Your task to perform on an android device: Clear the cart on ebay. Search for acer predator on ebay, select the first entry, and add it to the cart. Image 0: 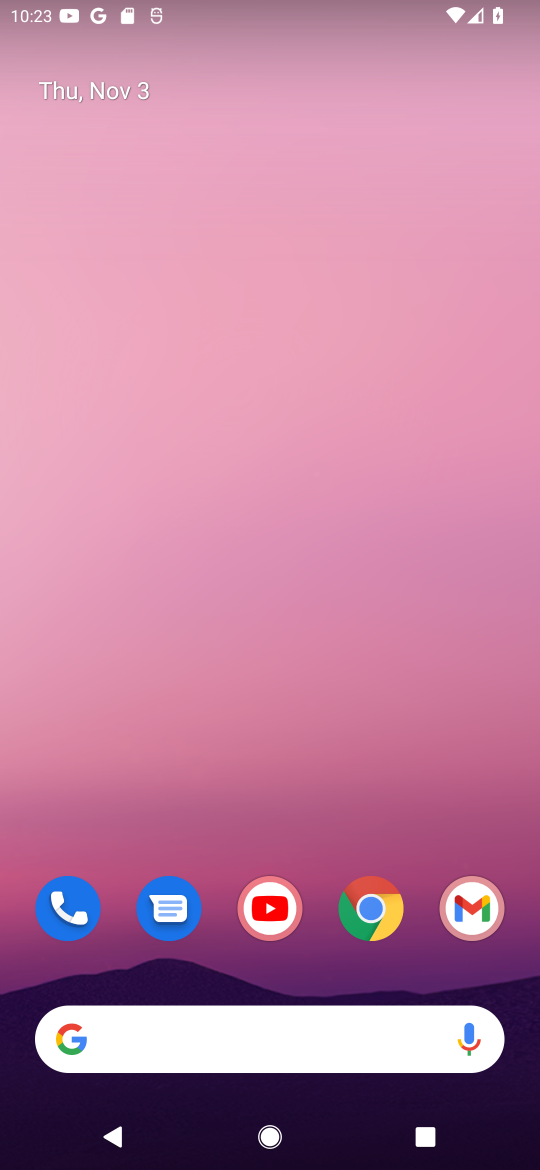
Step 0: click (366, 897)
Your task to perform on an android device: Clear the cart on ebay. Search for acer predator on ebay, select the first entry, and add it to the cart. Image 1: 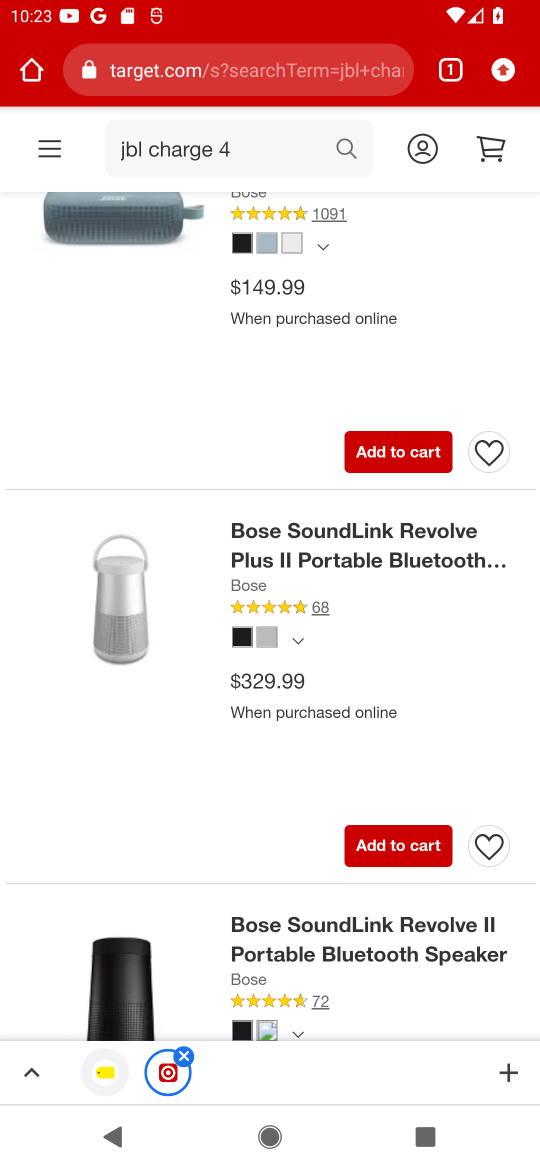
Step 1: click (29, 65)
Your task to perform on an android device: Clear the cart on ebay. Search for acer predator on ebay, select the first entry, and add it to the cart. Image 2: 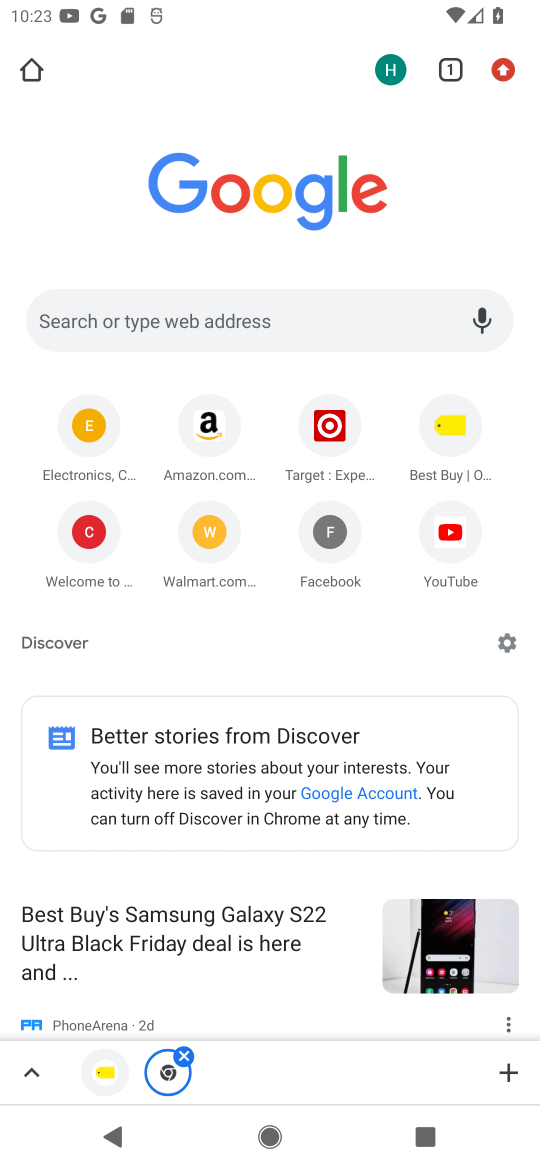
Step 2: click (274, 302)
Your task to perform on an android device: Clear the cart on ebay. Search for acer predator on ebay, select the first entry, and add it to the cart. Image 3: 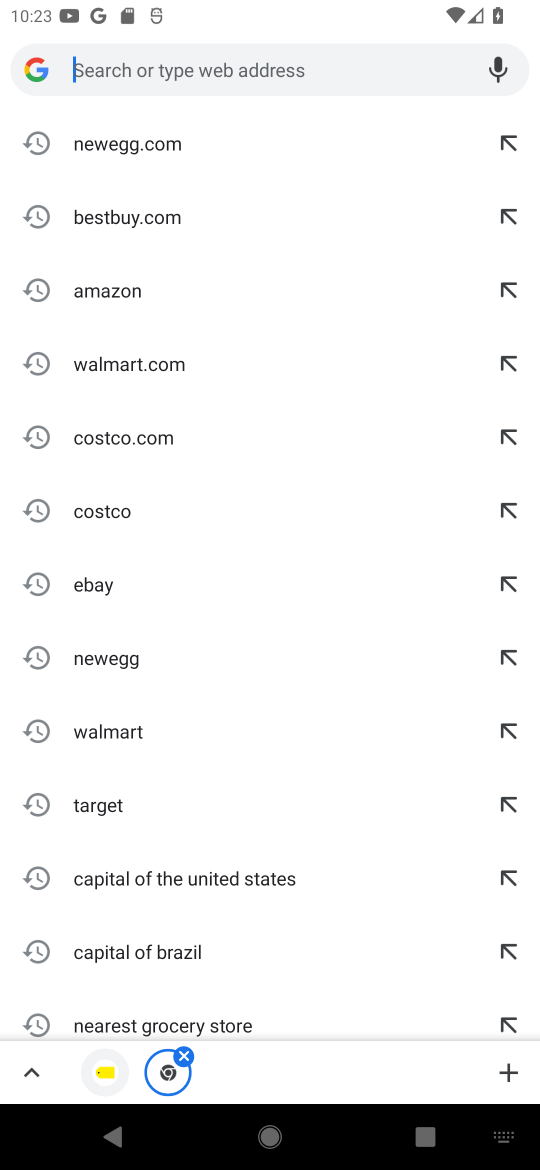
Step 3: click (98, 588)
Your task to perform on an android device: Clear the cart on ebay. Search for acer predator on ebay, select the first entry, and add it to the cart. Image 4: 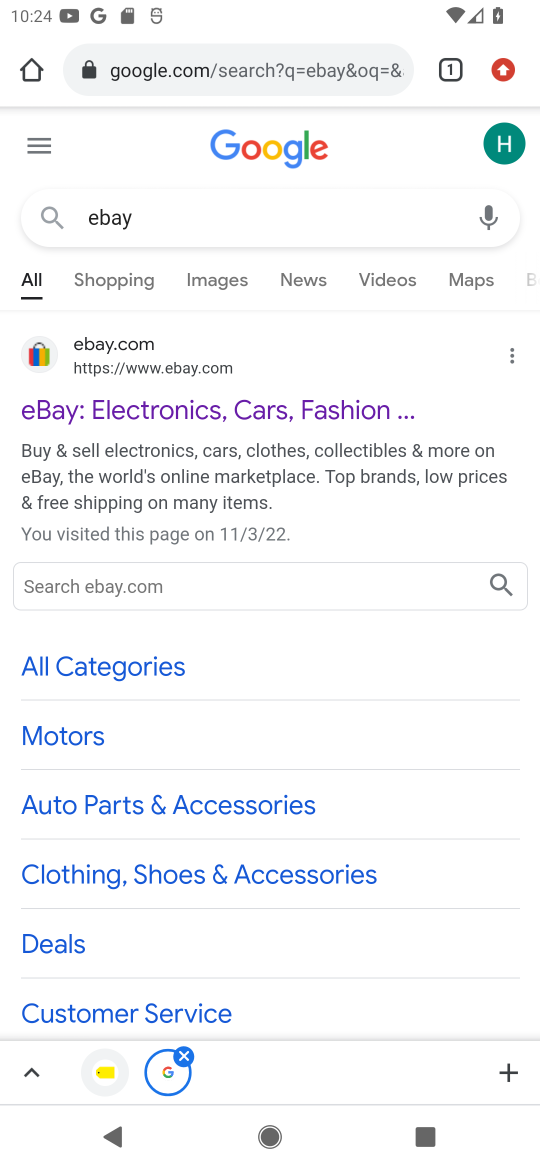
Step 4: click (168, 373)
Your task to perform on an android device: Clear the cart on ebay. Search for acer predator on ebay, select the first entry, and add it to the cart. Image 5: 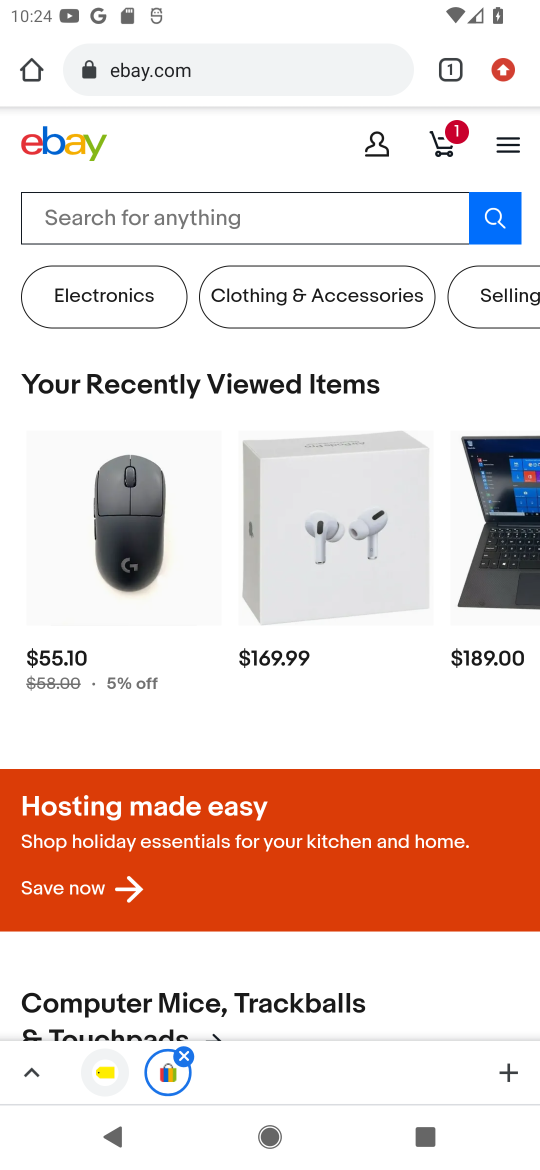
Step 5: click (450, 142)
Your task to perform on an android device: Clear the cart on ebay. Search for acer predator on ebay, select the first entry, and add it to the cart. Image 6: 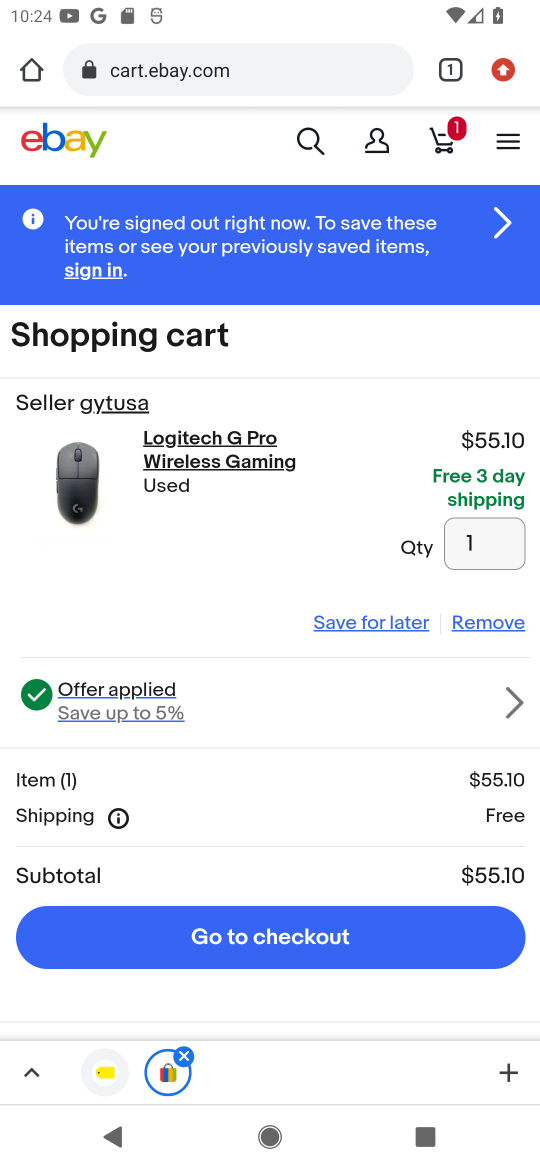
Step 6: click (476, 622)
Your task to perform on an android device: Clear the cart on ebay. Search for acer predator on ebay, select the first entry, and add it to the cart. Image 7: 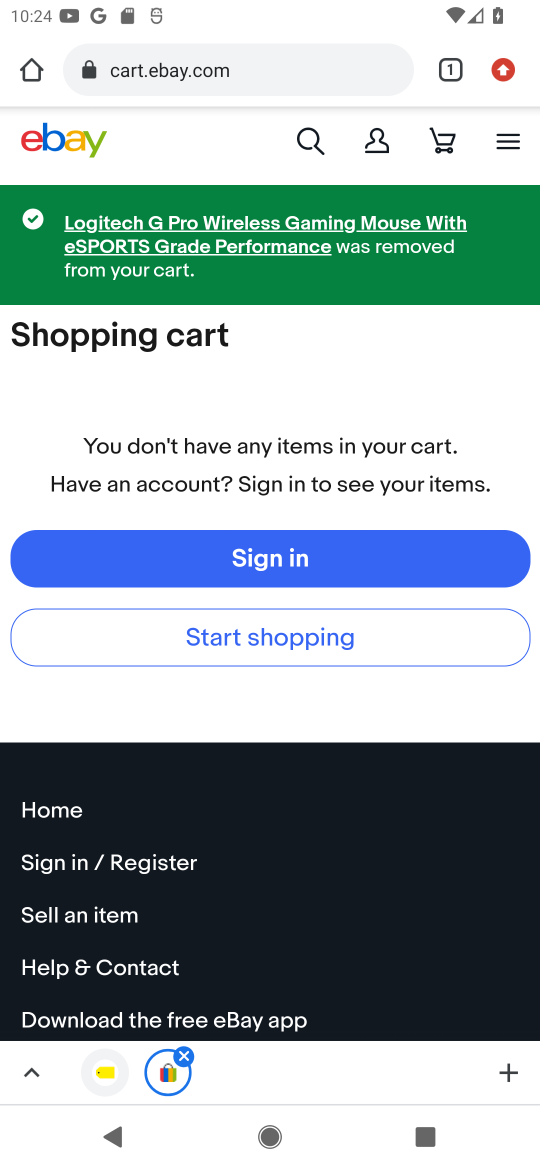
Step 7: click (308, 149)
Your task to perform on an android device: Clear the cart on ebay. Search for acer predator on ebay, select the first entry, and add it to the cart. Image 8: 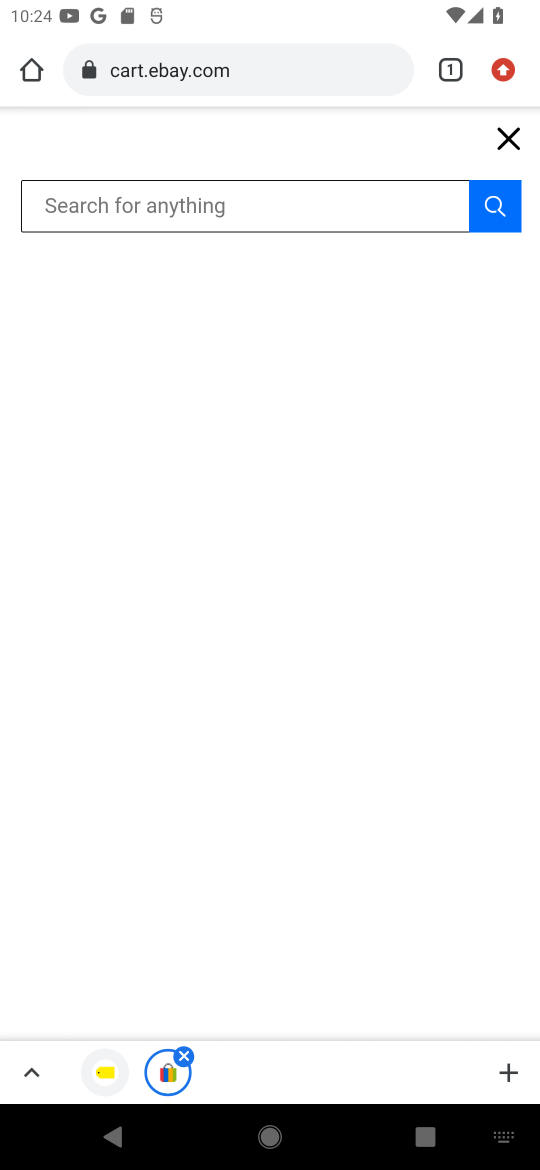
Step 8: type "acer predator "
Your task to perform on an android device: Clear the cart on ebay. Search for acer predator on ebay, select the first entry, and add it to the cart. Image 9: 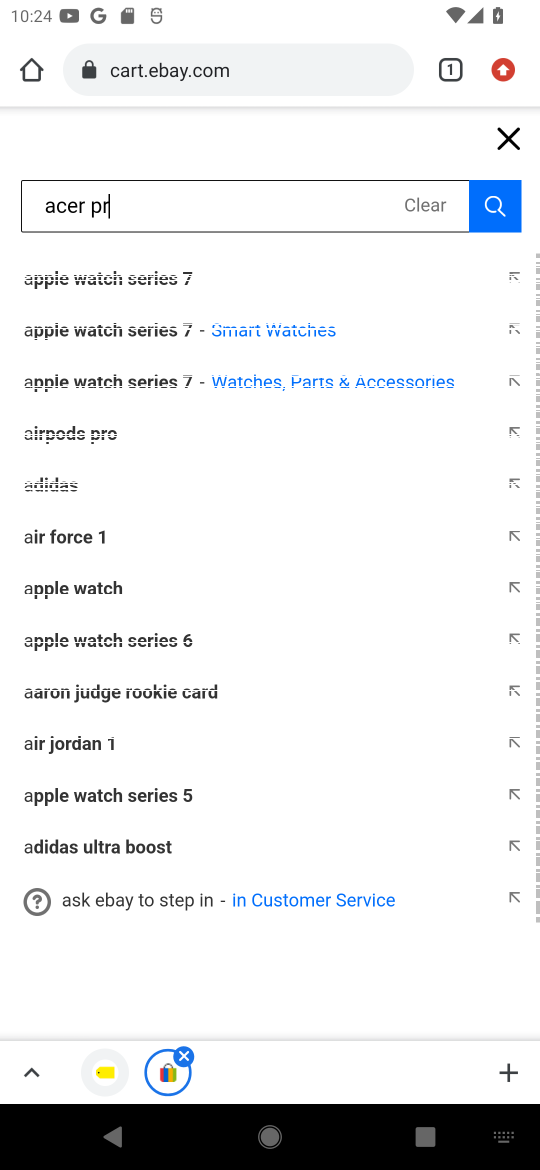
Step 9: press enter
Your task to perform on an android device: Clear the cart on ebay. Search for acer predator on ebay, select the first entry, and add it to the cart. Image 10: 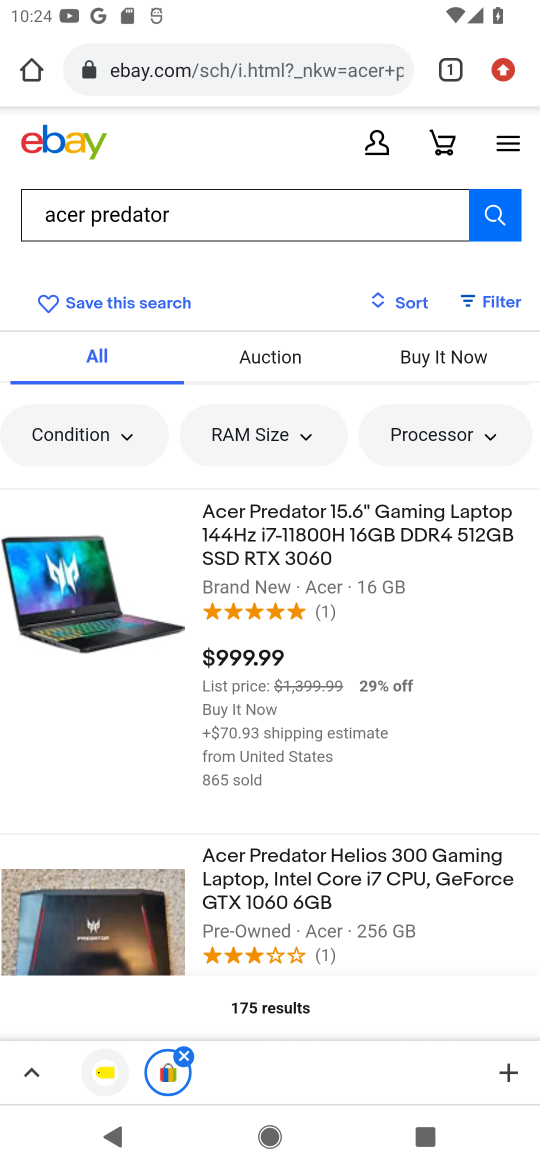
Step 10: click (353, 523)
Your task to perform on an android device: Clear the cart on ebay. Search for acer predator on ebay, select the first entry, and add it to the cart. Image 11: 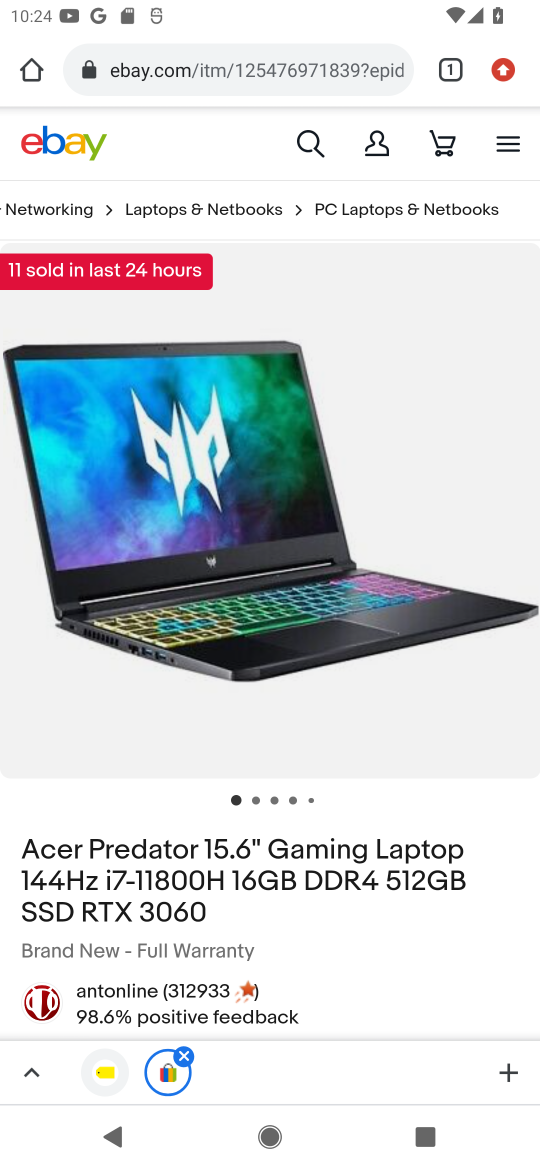
Step 11: drag from (353, 930) to (376, 423)
Your task to perform on an android device: Clear the cart on ebay. Search for acer predator on ebay, select the first entry, and add it to the cart. Image 12: 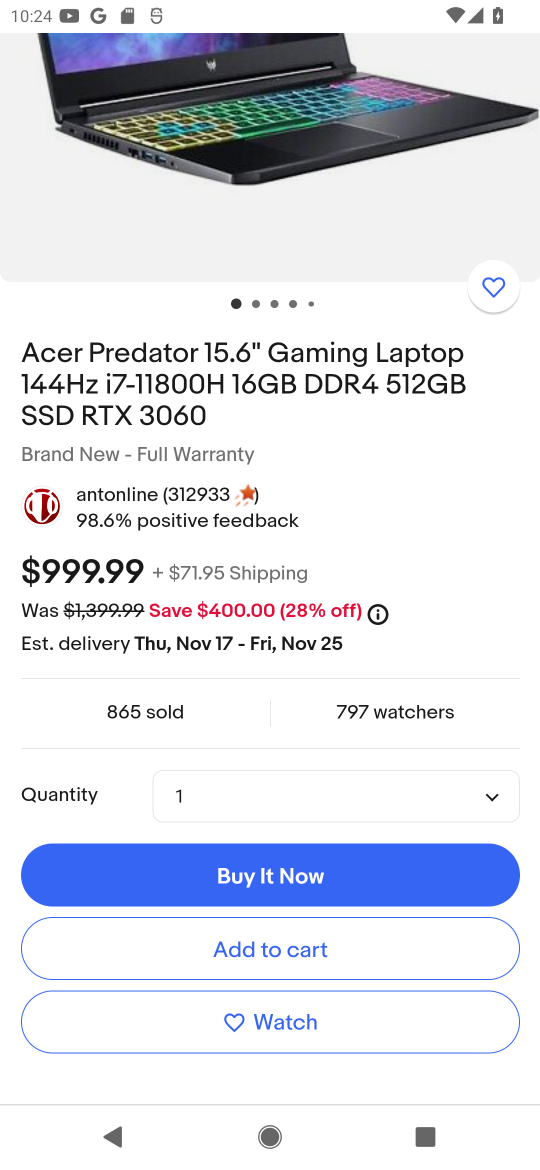
Step 12: click (281, 945)
Your task to perform on an android device: Clear the cart on ebay. Search for acer predator on ebay, select the first entry, and add it to the cart. Image 13: 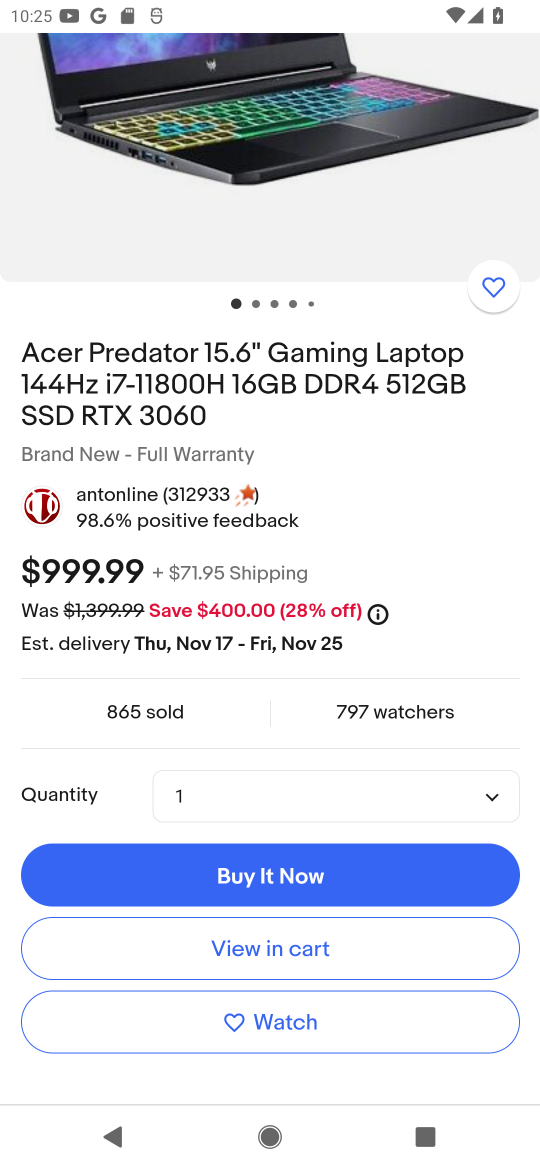
Step 13: task complete